Your task to perform on an android device: toggle airplane mode Image 0: 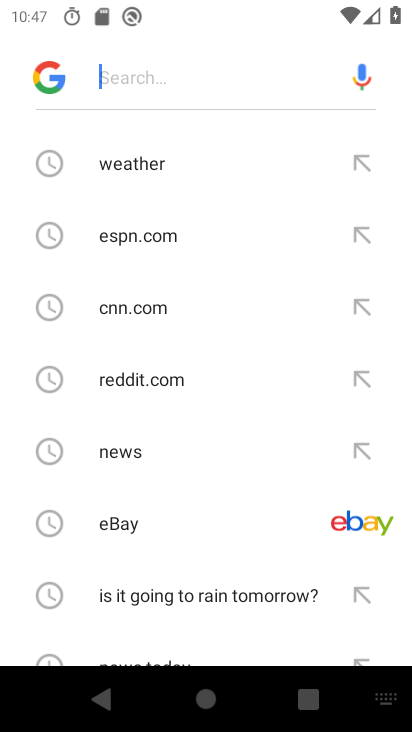
Step 0: press home button
Your task to perform on an android device: toggle airplane mode Image 1: 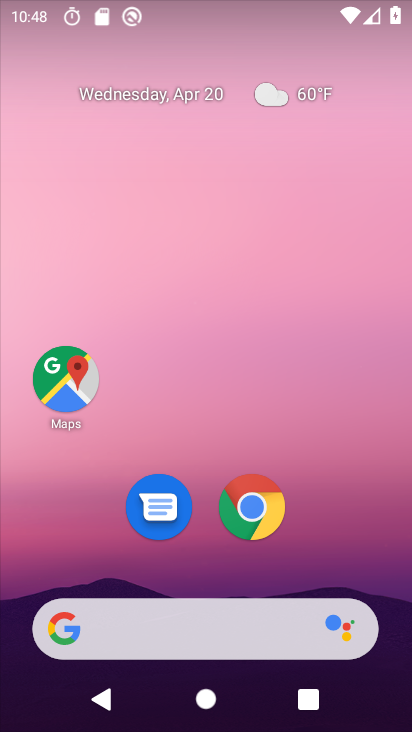
Step 1: drag from (198, 571) to (130, 126)
Your task to perform on an android device: toggle airplane mode Image 2: 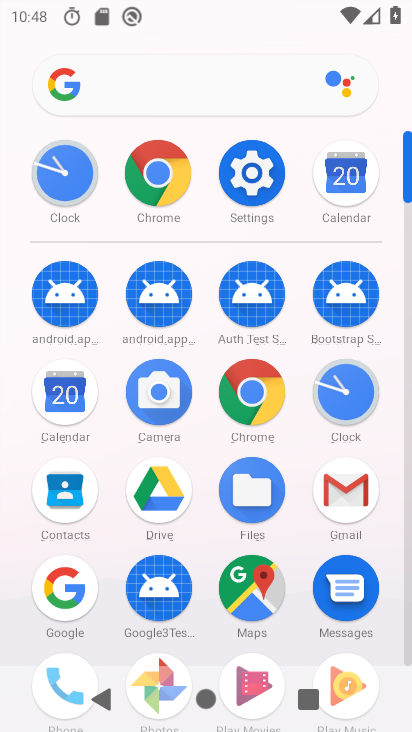
Step 2: click (257, 168)
Your task to perform on an android device: toggle airplane mode Image 3: 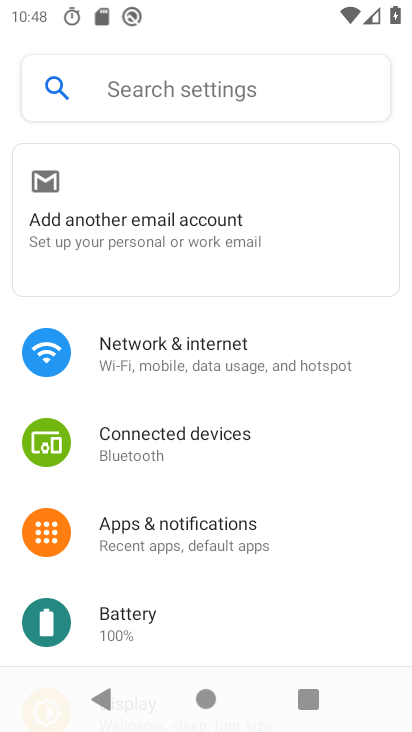
Step 3: click (164, 354)
Your task to perform on an android device: toggle airplane mode Image 4: 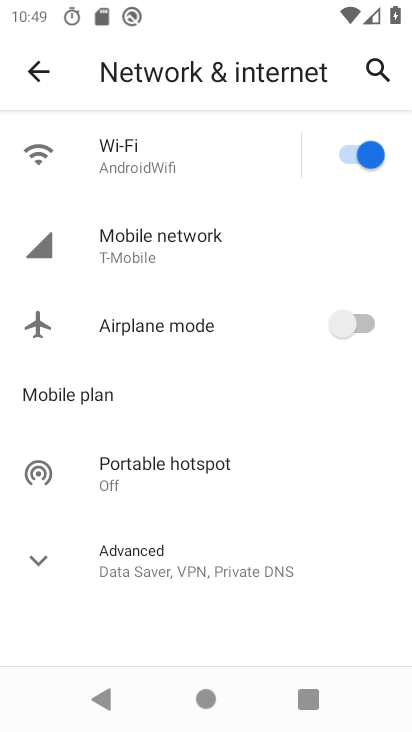
Step 4: click (349, 330)
Your task to perform on an android device: toggle airplane mode Image 5: 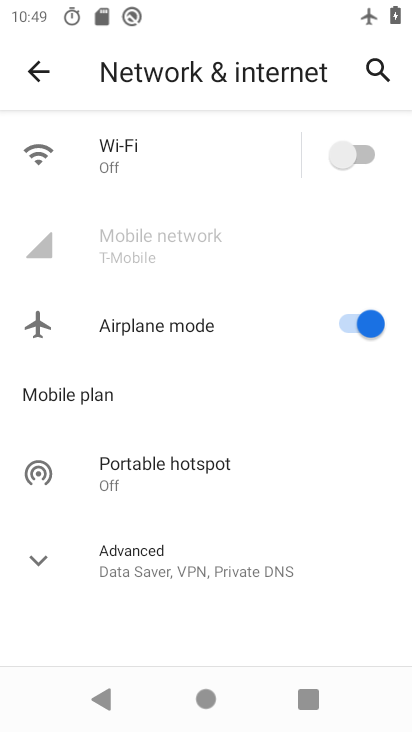
Step 5: task complete